Your task to perform on an android device: Open the Play Movies app and select the watchlist tab. Image 0: 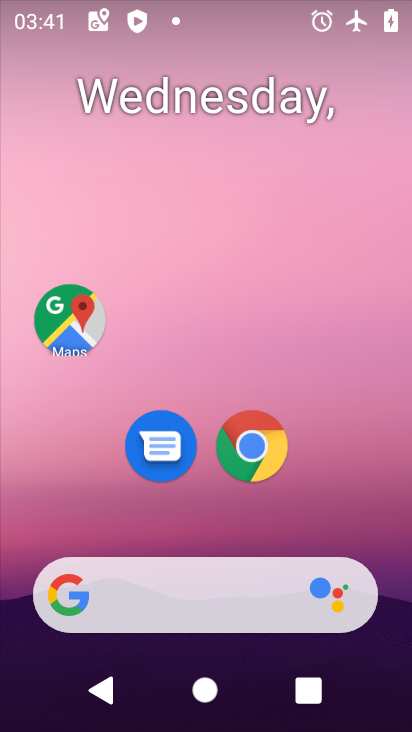
Step 0: drag from (202, 496) to (232, 210)
Your task to perform on an android device: Open the Play Movies app and select the watchlist tab. Image 1: 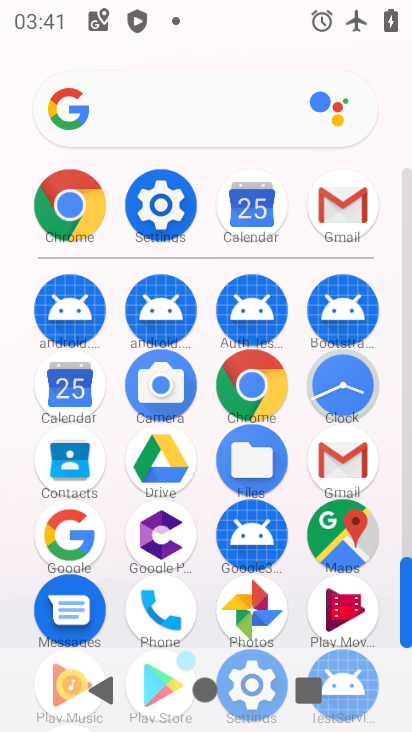
Step 1: click (325, 603)
Your task to perform on an android device: Open the Play Movies app and select the watchlist tab. Image 2: 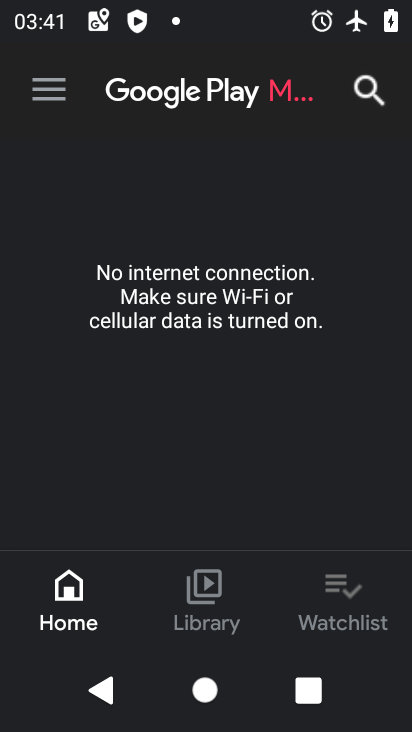
Step 2: click (345, 600)
Your task to perform on an android device: Open the Play Movies app and select the watchlist tab. Image 3: 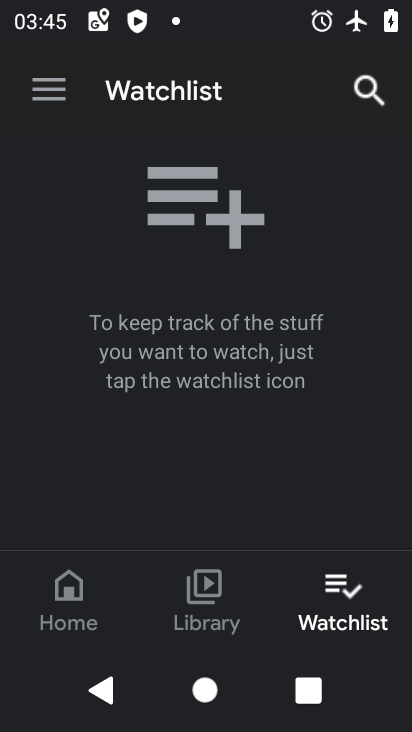
Step 3: task complete